Your task to perform on an android device: toggle javascript in the chrome app Image 0: 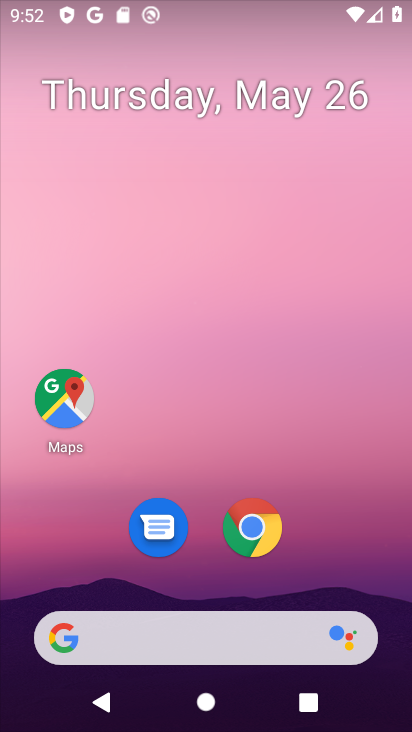
Step 0: click (235, 529)
Your task to perform on an android device: toggle javascript in the chrome app Image 1: 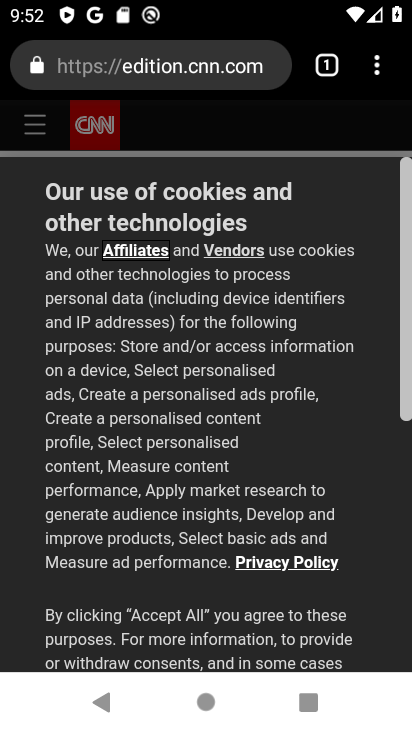
Step 1: click (378, 67)
Your task to perform on an android device: toggle javascript in the chrome app Image 2: 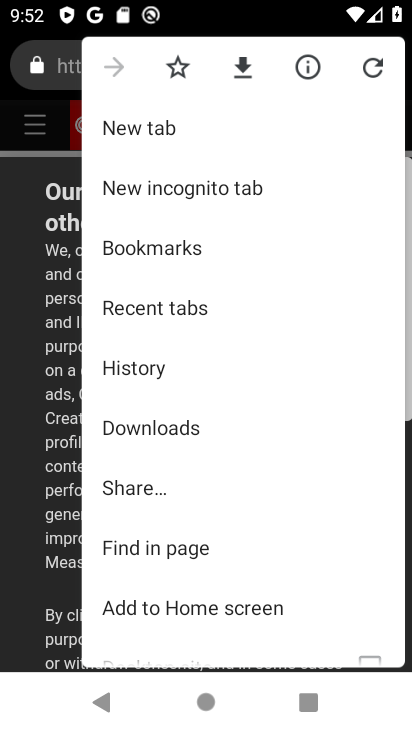
Step 2: drag from (252, 605) to (246, 246)
Your task to perform on an android device: toggle javascript in the chrome app Image 3: 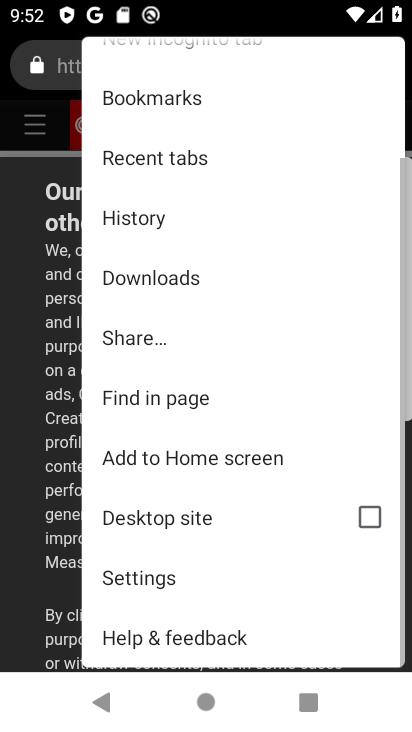
Step 3: click (179, 581)
Your task to perform on an android device: toggle javascript in the chrome app Image 4: 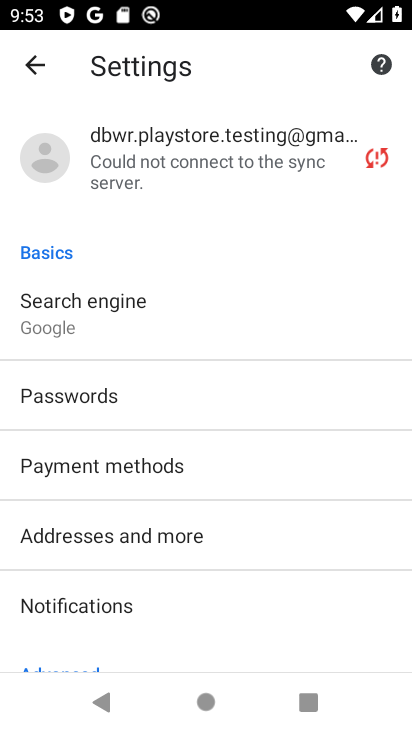
Step 4: drag from (162, 604) to (207, 105)
Your task to perform on an android device: toggle javascript in the chrome app Image 5: 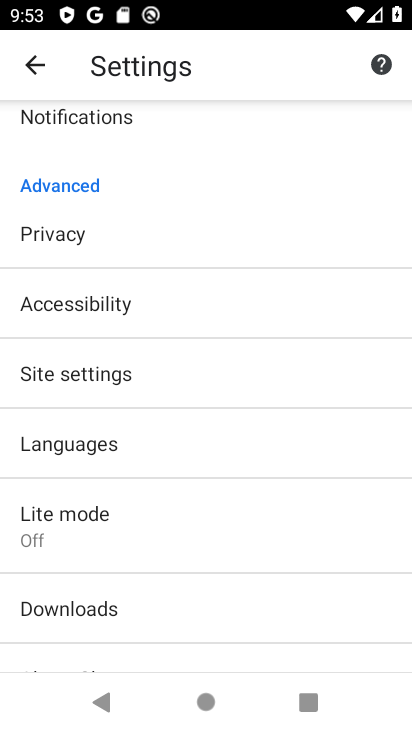
Step 5: click (117, 380)
Your task to perform on an android device: toggle javascript in the chrome app Image 6: 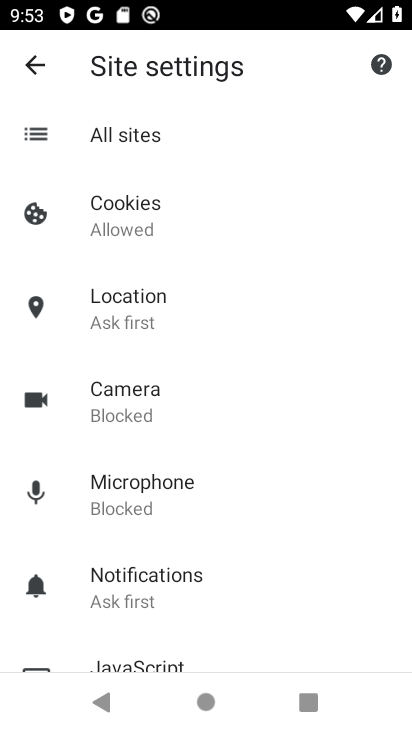
Step 6: drag from (155, 594) to (166, 353)
Your task to perform on an android device: toggle javascript in the chrome app Image 7: 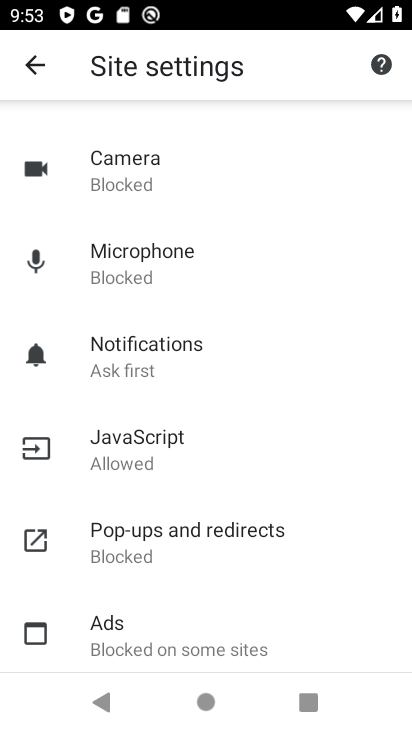
Step 7: click (155, 444)
Your task to perform on an android device: toggle javascript in the chrome app Image 8: 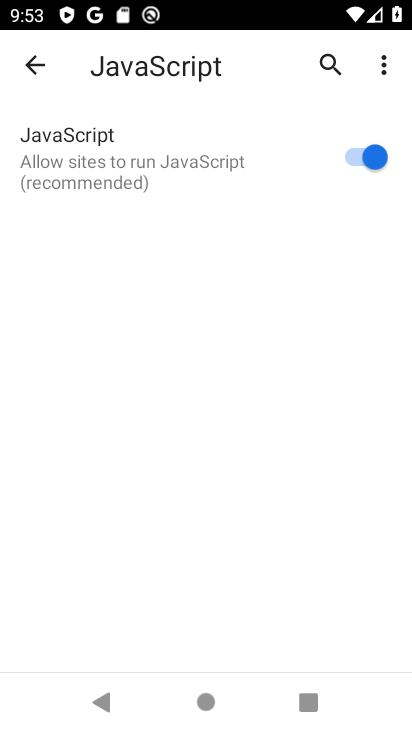
Step 8: click (376, 143)
Your task to perform on an android device: toggle javascript in the chrome app Image 9: 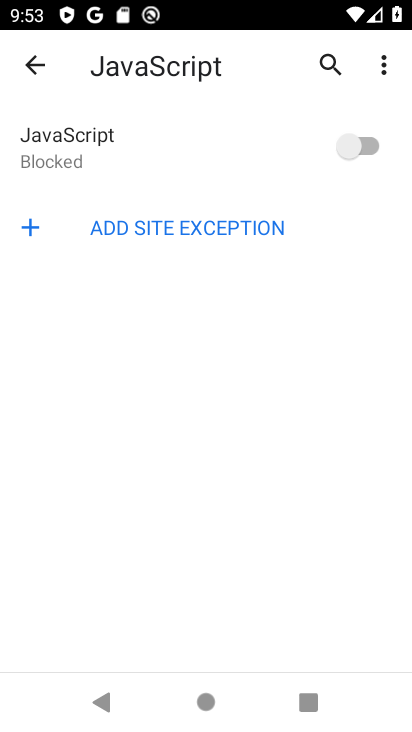
Step 9: task complete